Your task to perform on an android device: see sites visited before in the chrome app Image 0: 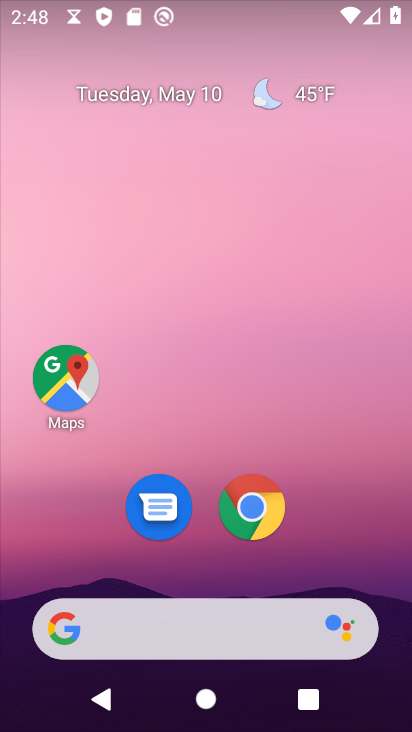
Step 0: click (272, 518)
Your task to perform on an android device: see sites visited before in the chrome app Image 1: 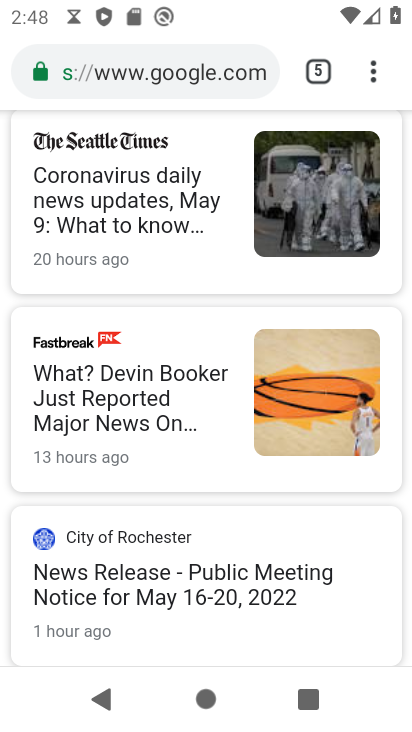
Step 1: click (372, 70)
Your task to perform on an android device: see sites visited before in the chrome app Image 2: 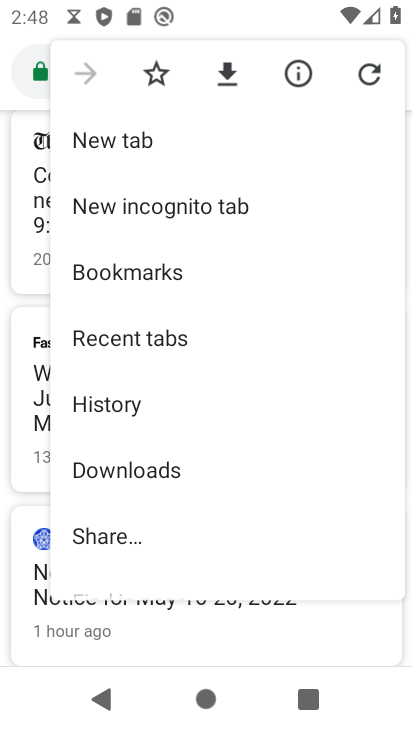
Step 2: click (126, 339)
Your task to perform on an android device: see sites visited before in the chrome app Image 3: 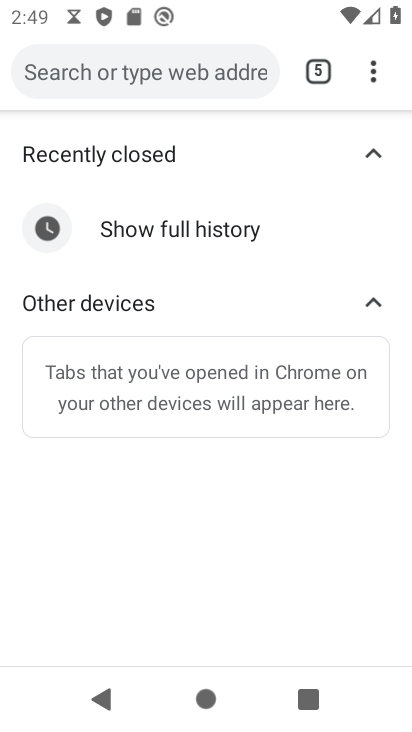
Step 3: click (174, 228)
Your task to perform on an android device: see sites visited before in the chrome app Image 4: 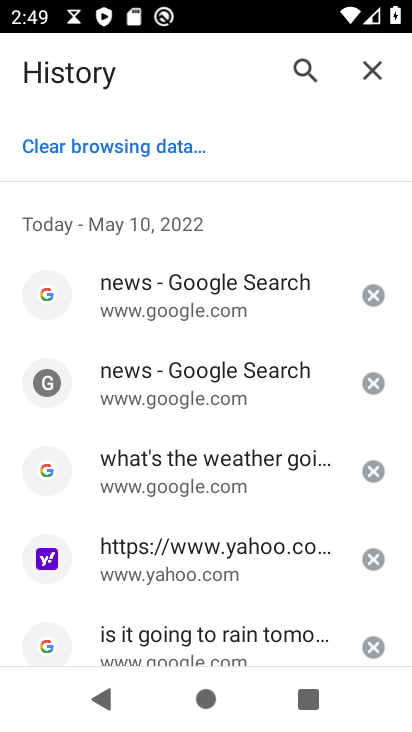
Step 4: task complete